Your task to perform on an android device: turn off smart reply in the gmail app Image 0: 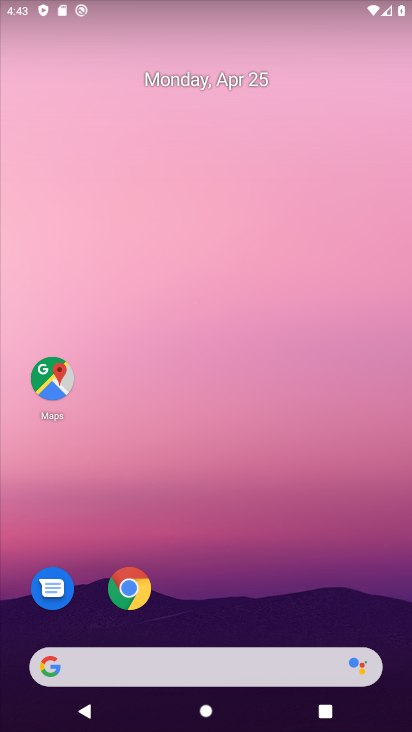
Step 0: drag from (306, 482) to (347, 32)
Your task to perform on an android device: turn off smart reply in the gmail app Image 1: 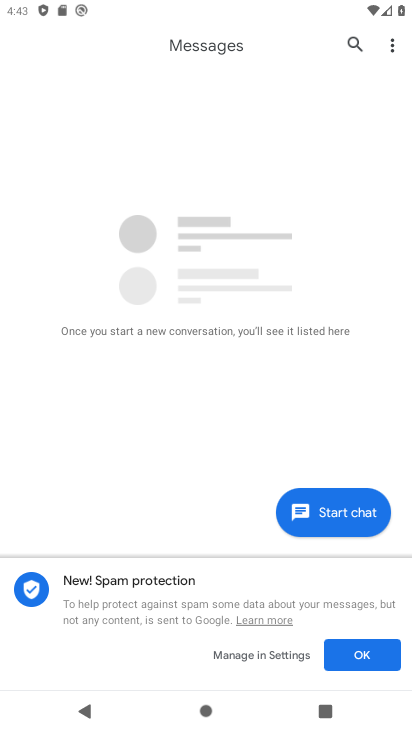
Step 1: press home button
Your task to perform on an android device: turn off smart reply in the gmail app Image 2: 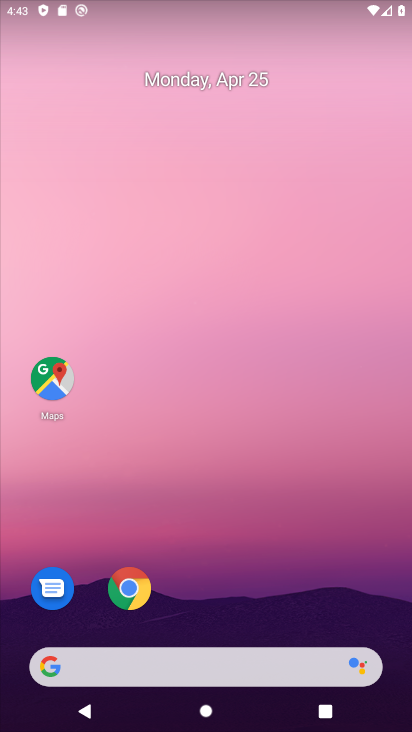
Step 2: drag from (279, 638) to (297, 2)
Your task to perform on an android device: turn off smart reply in the gmail app Image 3: 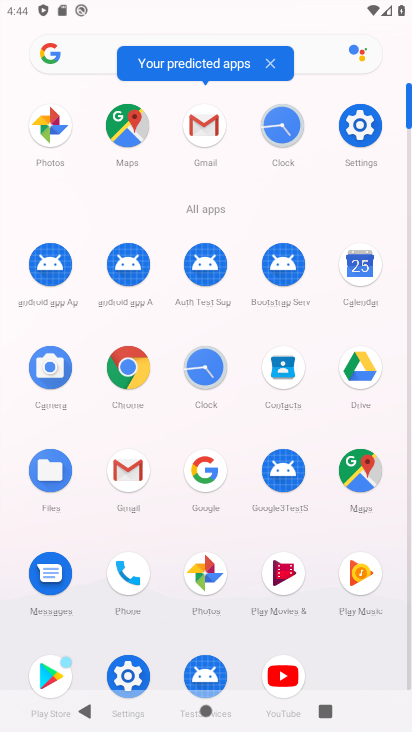
Step 3: click (130, 478)
Your task to perform on an android device: turn off smart reply in the gmail app Image 4: 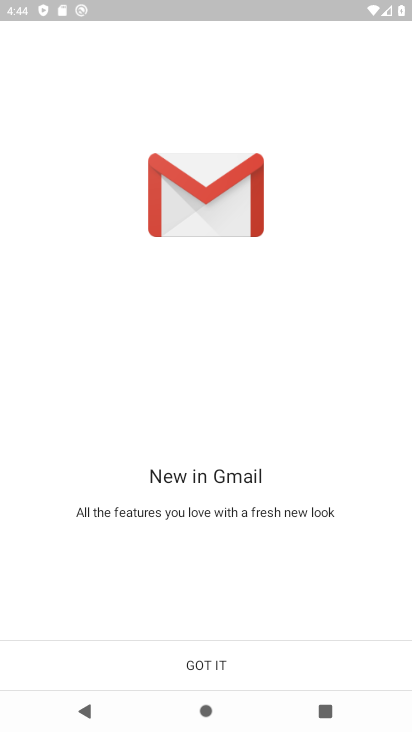
Step 4: click (280, 658)
Your task to perform on an android device: turn off smart reply in the gmail app Image 5: 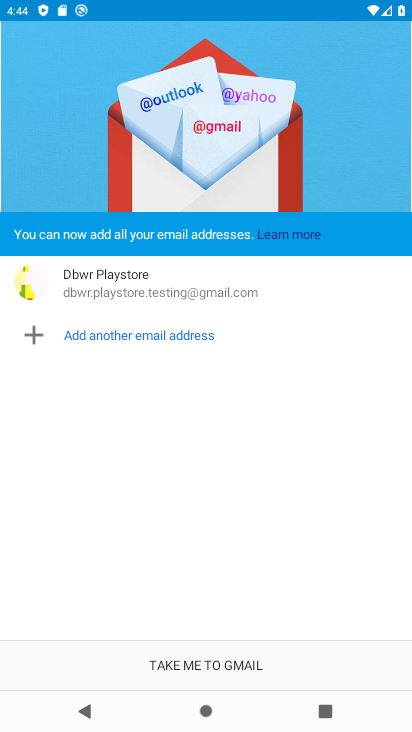
Step 5: click (282, 658)
Your task to perform on an android device: turn off smart reply in the gmail app Image 6: 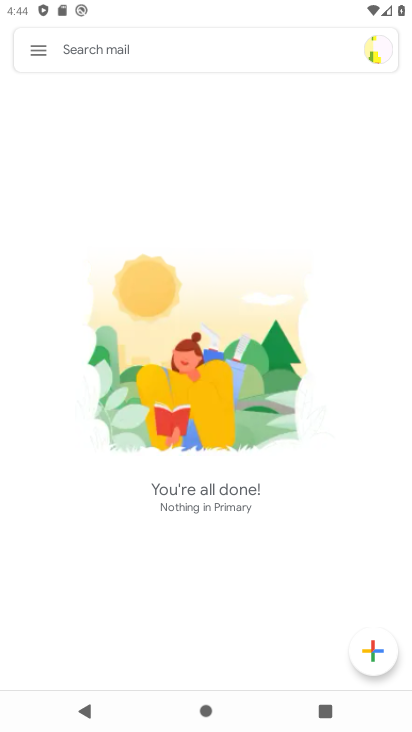
Step 6: click (44, 43)
Your task to perform on an android device: turn off smart reply in the gmail app Image 7: 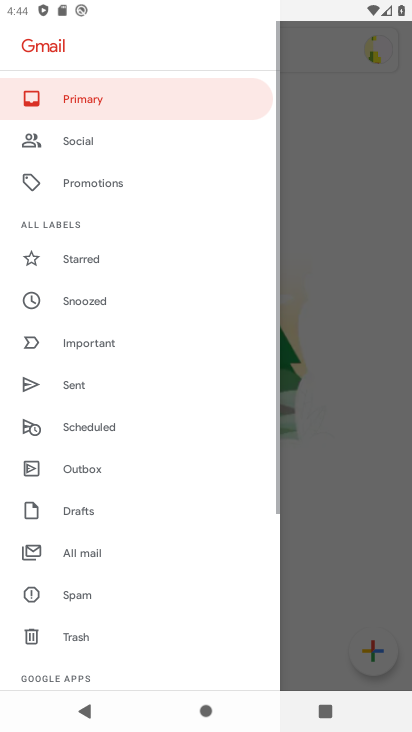
Step 7: drag from (162, 560) to (209, 41)
Your task to perform on an android device: turn off smart reply in the gmail app Image 8: 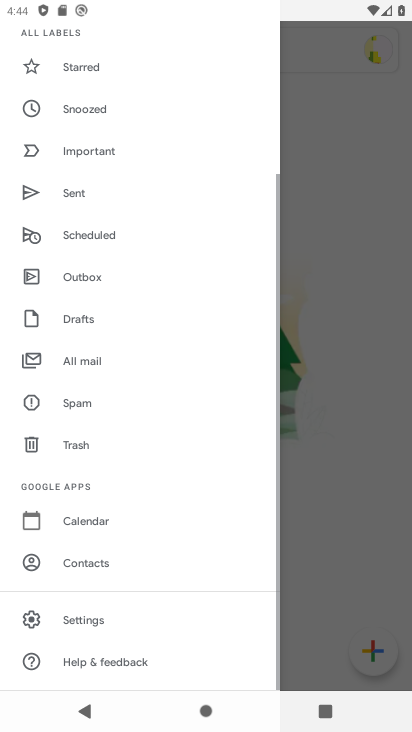
Step 8: click (118, 616)
Your task to perform on an android device: turn off smart reply in the gmail app Image 9: 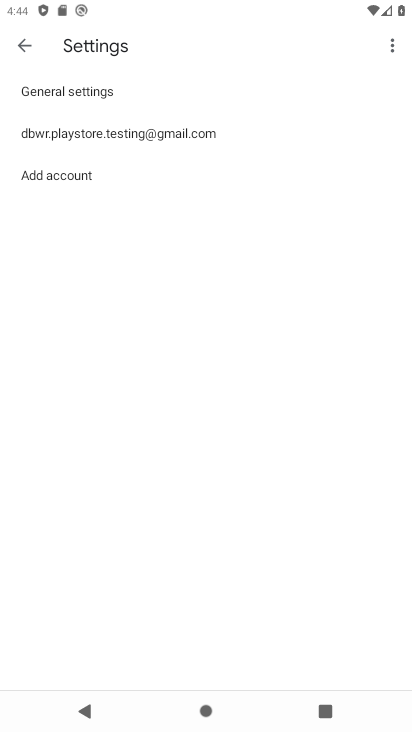
Step 9: click (174, 133)
Your task to perform on an android device: turn off smart reply in the gmail app Image 10: 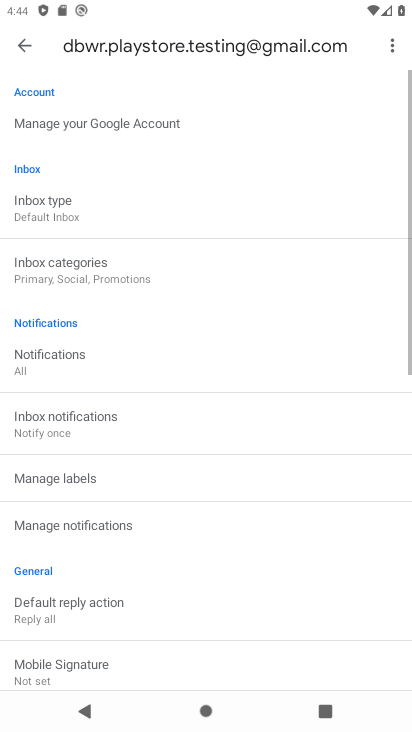
Step 10: task complete